Your task to perform on an android device: Open location settings Image 0: 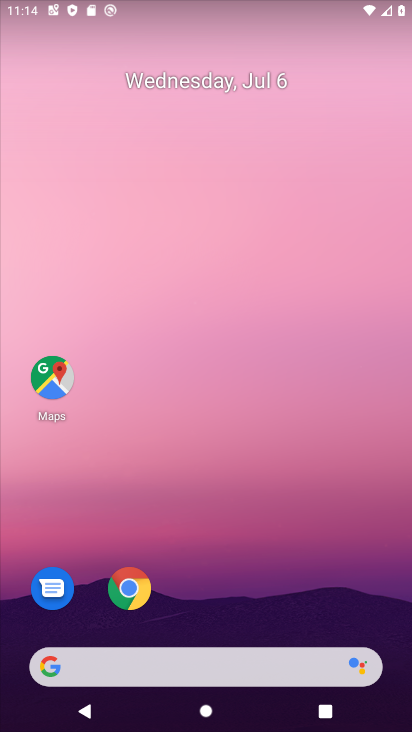
Step 0: drag from (229, 580) to (250, 280)
Your task to perform on an android device: Open location settings Image 1: 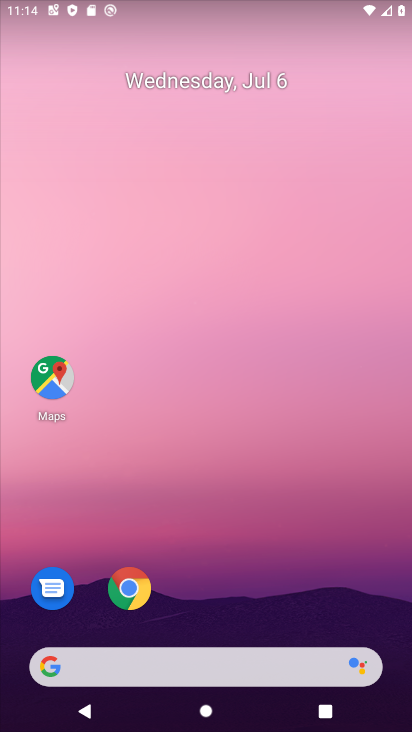
Step 1: drag from (186, 636) to (213, 297)
Your task to perform on an android device: Open location settings Image 2: 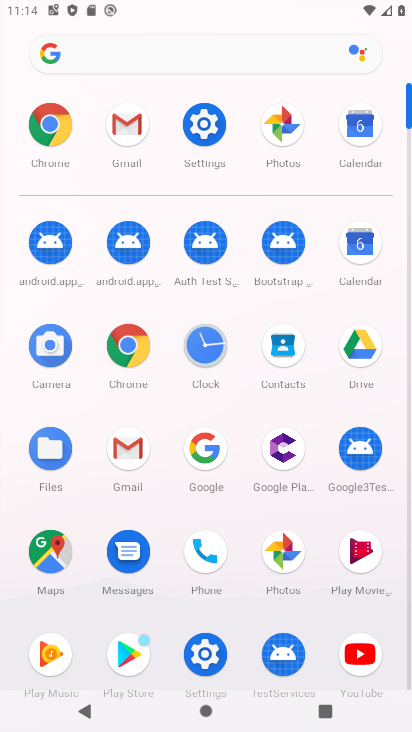
Step 2: click (216, 118)
Your task to perform on an android device: Open location settings Image 3: 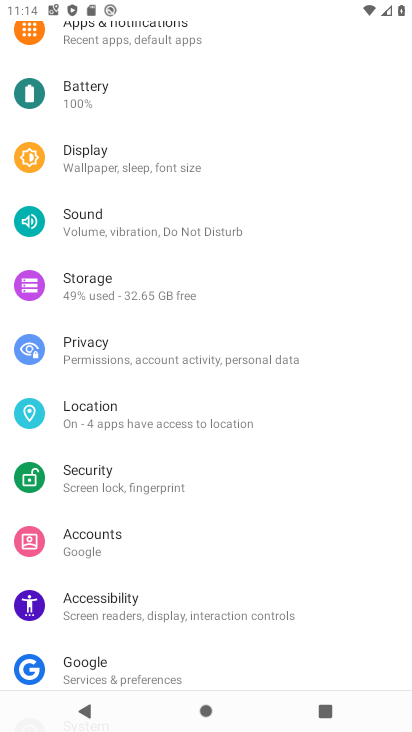
Step 3: click (123, 407)
Your task to perform on an android device: Open location settings Image 4: 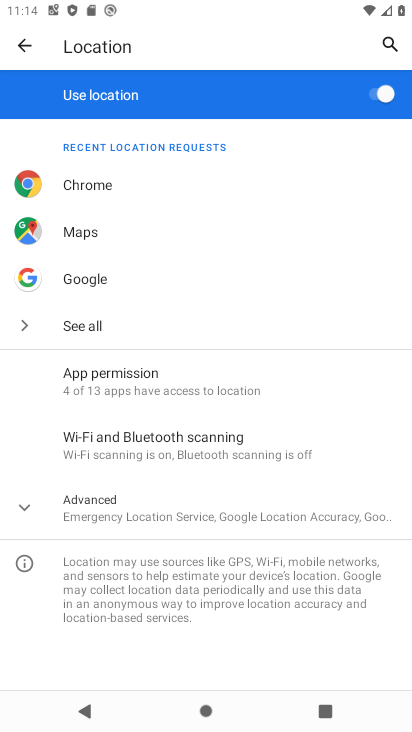
Step 4: task complete